Your task to perform on an android device: check google app version Image 0: 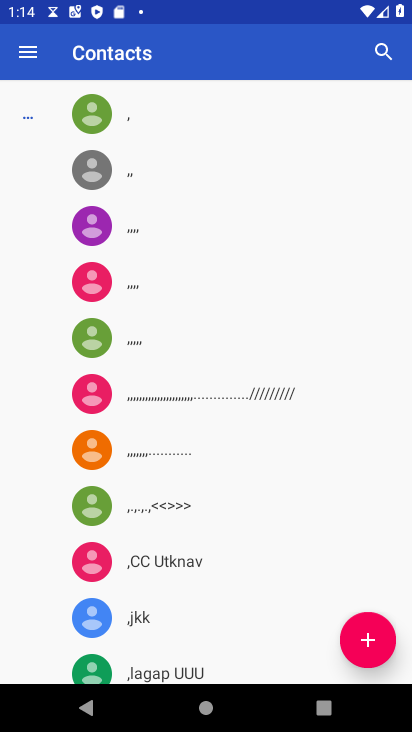
Step 0: press home button
Your task to perform on an android device: check google app version Image 1: 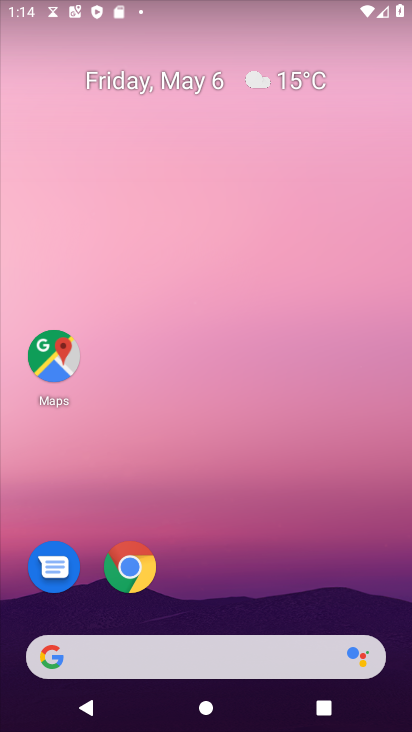
Step 1: drag from (298, 543) to (259, 81)
Your task to perform on an android device: check google app version Image 2: 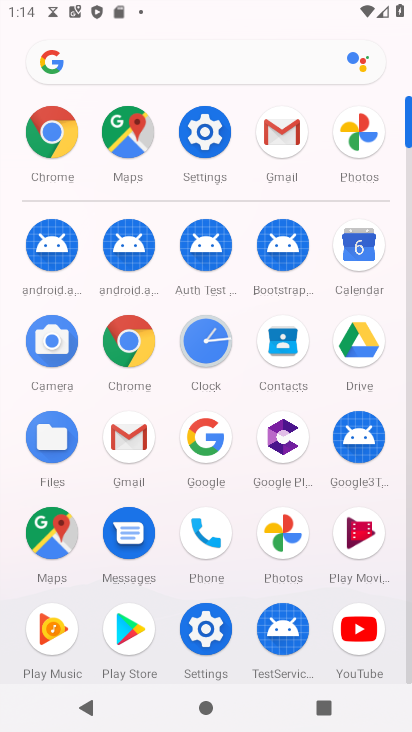
Step 2: click (211, 444)
Your task to perform on an android device: check google app version Image 3: 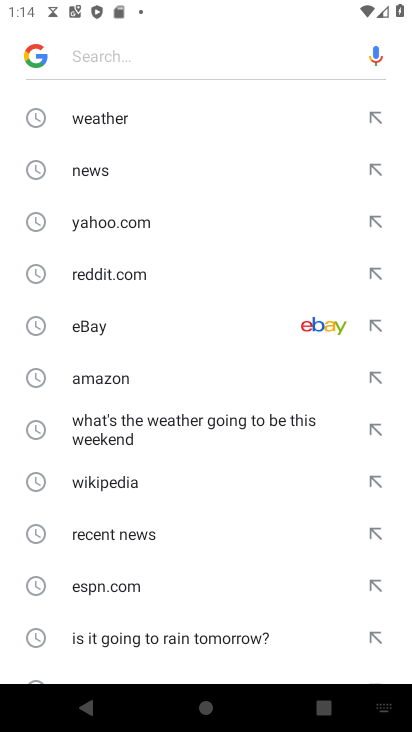
Step 3: click (42, 53)
Your task to perform on an android device: check google app version Image 4: 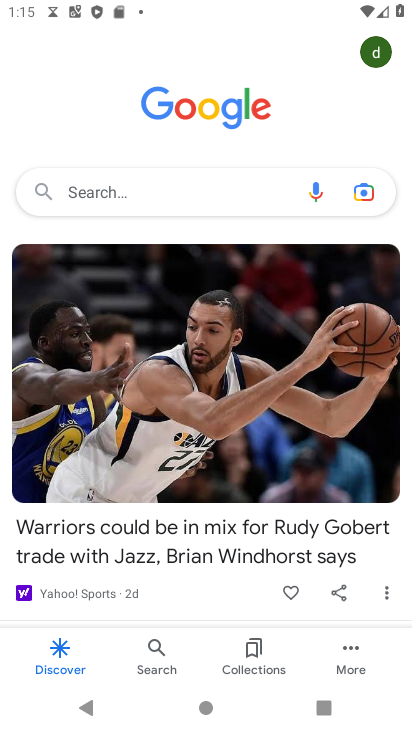
Step 4: click (351, 664)
Your task to perform on an android device: check google app version Image 5: 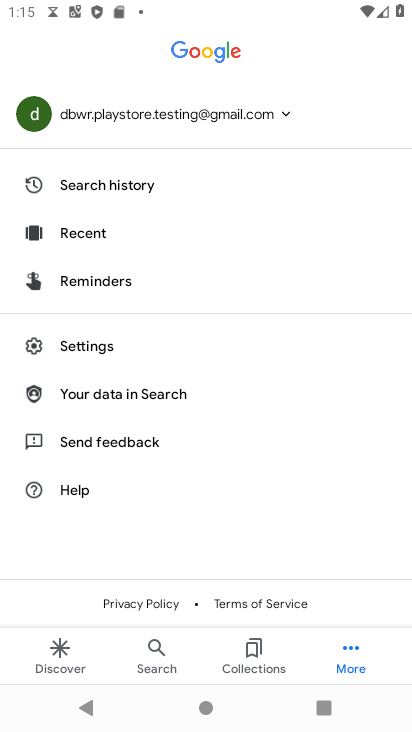
Step 5: click (95, 353)
Your task to perform on an android device: check google app version Image 6: 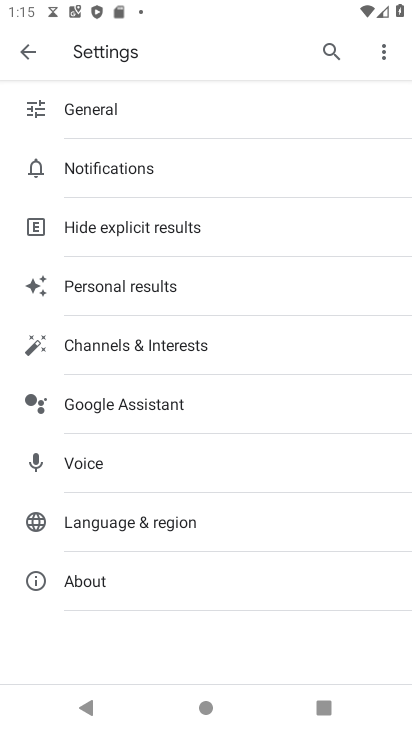
Step 6: click (86, 584)
Your task to perform on an android device: check google app version Image 7: 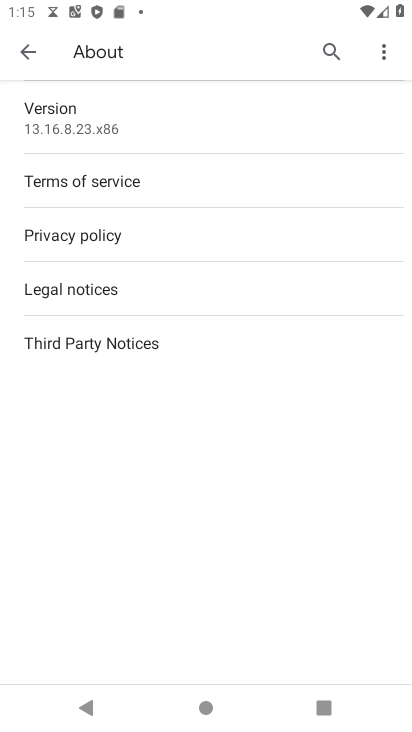
Step 7: click (75, 123)
Your task to perform on an android device: check google app version Image 8: 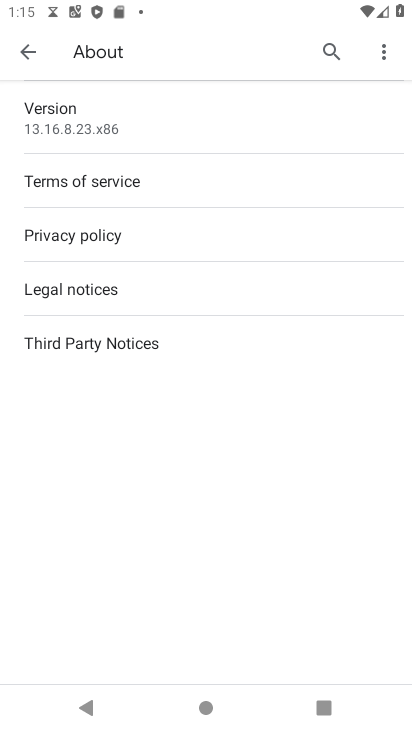
Step 8: task complete